Your task to perform on an android device: turn off improve location accuracy Image 0: 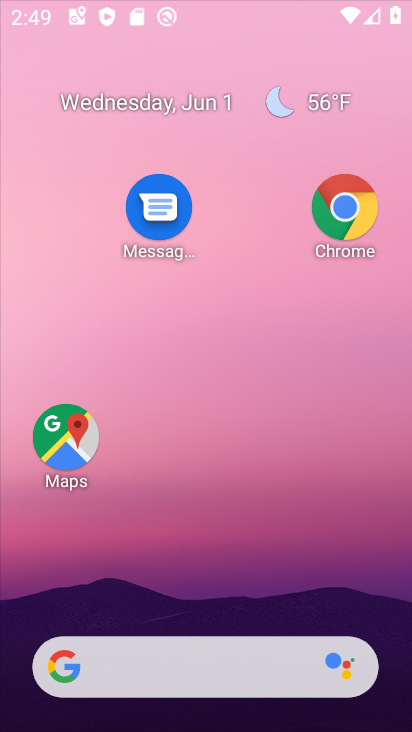
Step 0: drag from (279, 502) to (303, 213)
Your task to perform on an android device: turn off improve location accuracy Image 1: 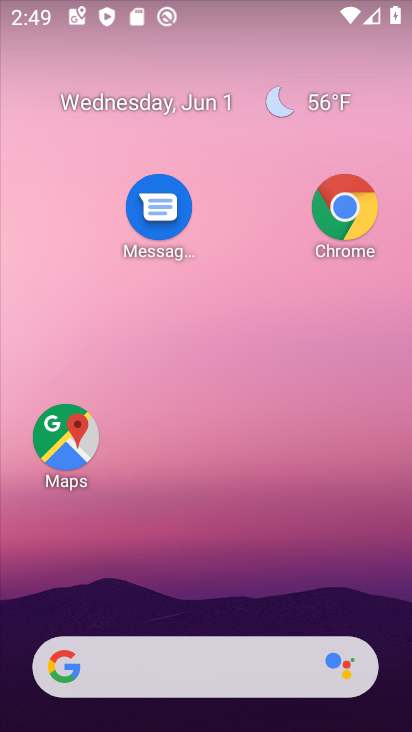
Step 1: drag from (221, 533) to (232, 107)
Your task to perform on an android device: turn off improve location accuracy Image 2: 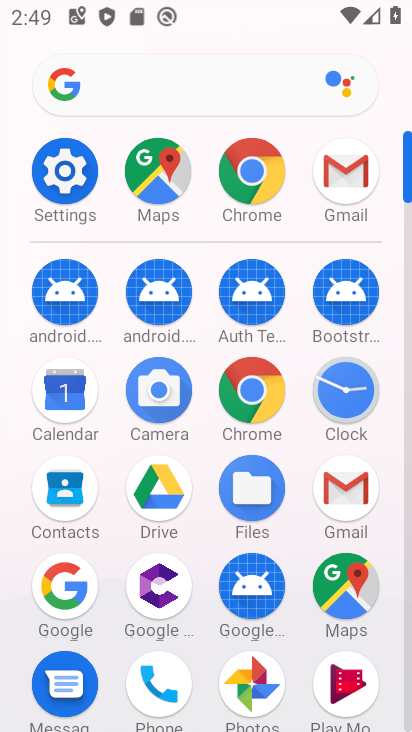
Step 2: click (74, 182)
Your task to perform on an android device: turn off improve location accuracy Image 3: 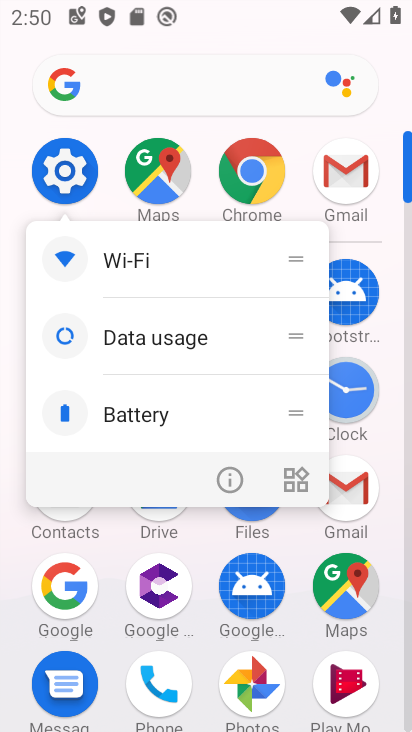
Step 3: click (224, 488)
Your task to perform on an android device: turn off improve location accuracy Image 4: 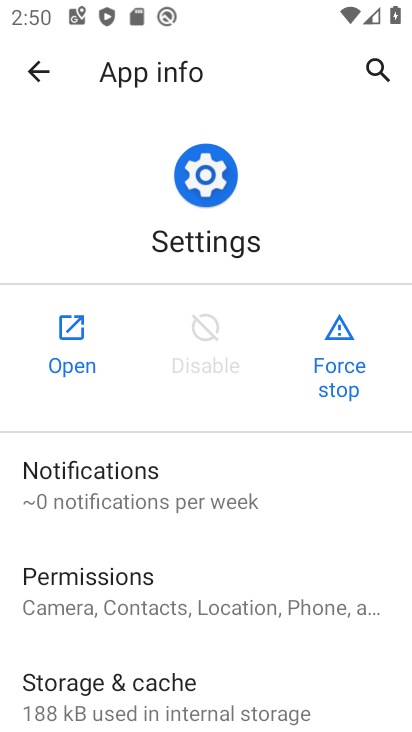
Step 4: click (74, 332)
Your task to perform on an android device: turn off improve location accuracy Image 5: 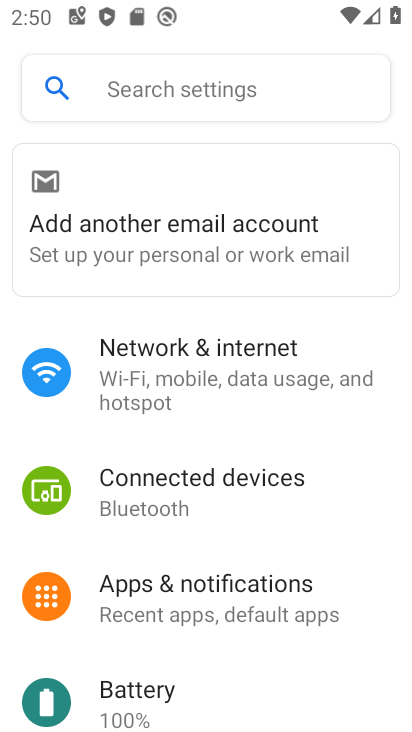
Step 5: drag from (200, 607) to (286, 21)
Your task to perform on an android device: turn off improve location accuracy Image 6: 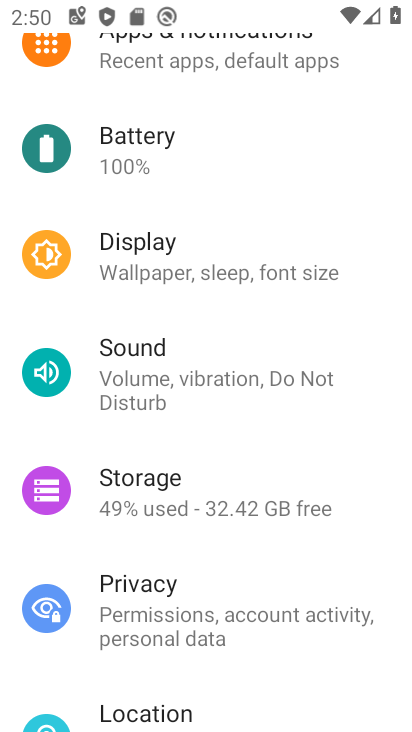
Step 6: drag from (208, 604) to (340, 157)
Your task to perform on an android device: turn off improve location accuracy Image 7: 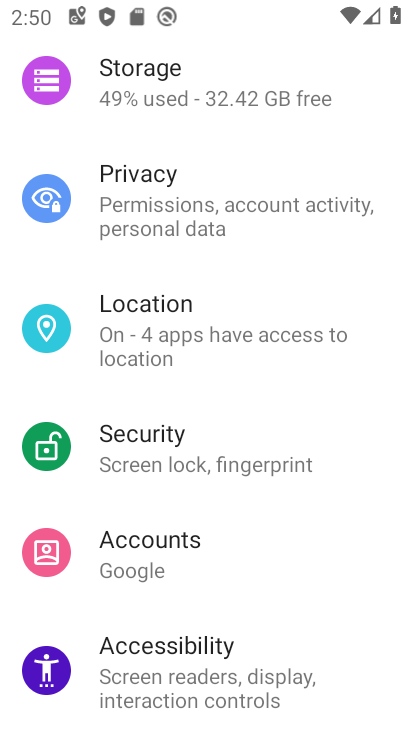
Step 7: drag from (248, 575) to (334, 130)
Your task to perform on an android device: turn off improve location accuracy Image 8: 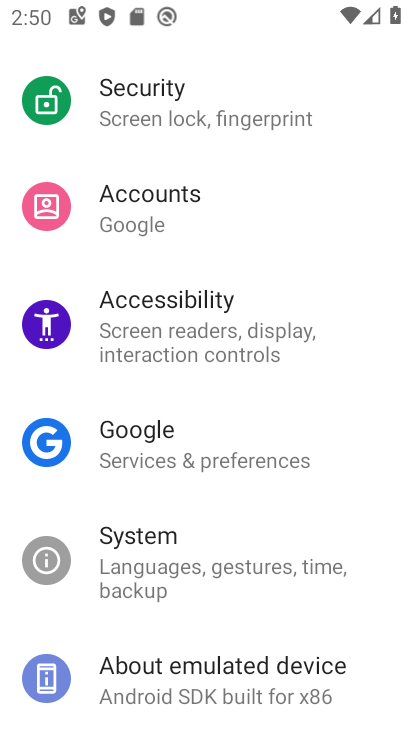
Step 8: drag from (235, 237) to (285, 645)
Your task to perform on an android device: turn off improve location accuracy Image 9: 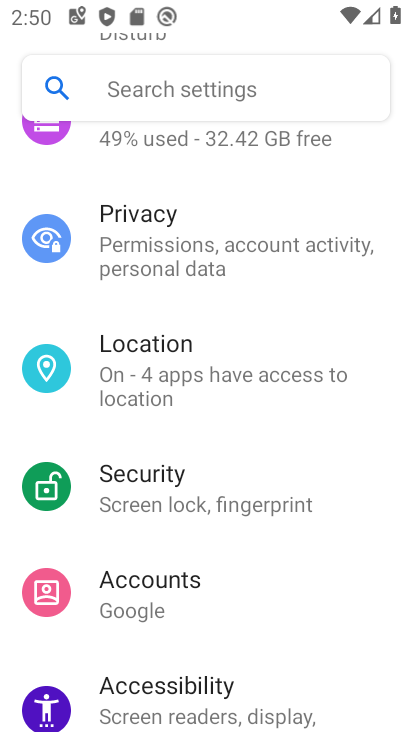
Step 9: click (154, 364)
Your task to perform on an android device: turn off improve location accuracy Image 10: 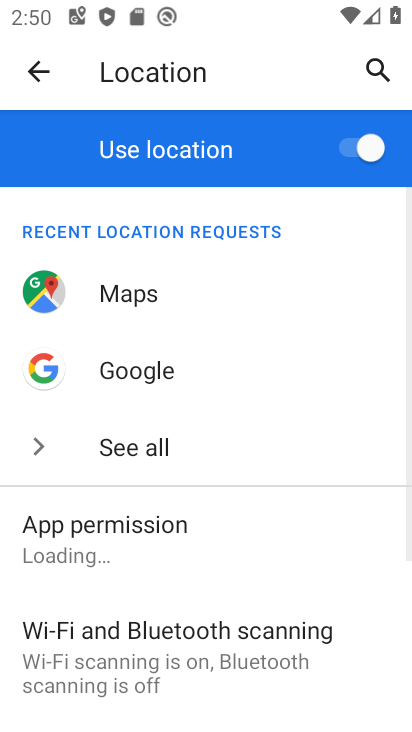
Step 10: drag from (198, 531) to (209, 275)
Your task to perform on an android device: turn off improve location accuracy Image 11: 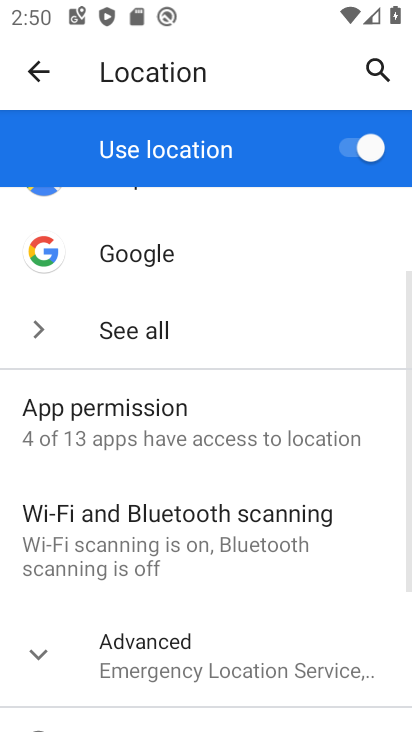
Step 11: click (184, 658)
Your task to perform on an android device: turn off improve location accuracy Image 12: 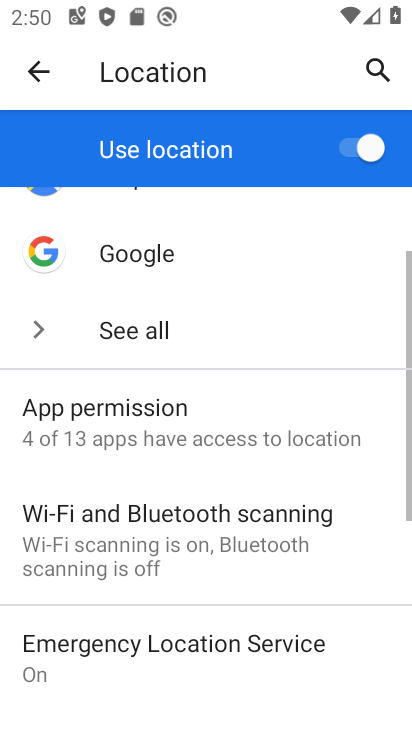
Step 12: drag from (258, 474) to (316, 150)
Your task to perform on an android device: turn off improve location accuracy Image 13: 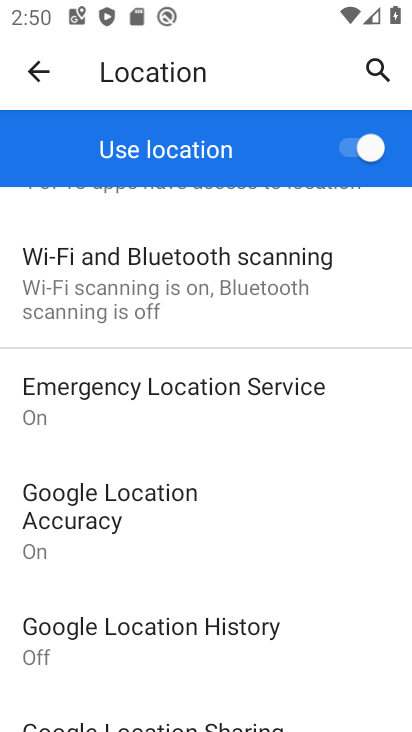
Step 13: drag from (222, 312) to (265, 382)
Your task to perform on an android device: turn off improve location accuracy Image 14: 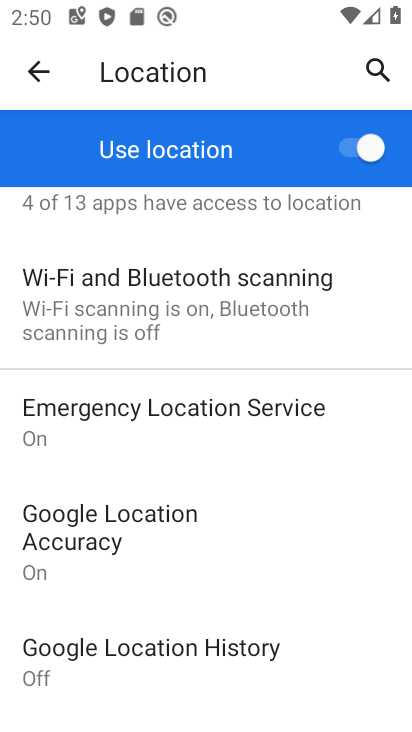
Step 14: click (144, 542)
Your task to perform on an android device: turn off improve location accuracy Image 15: 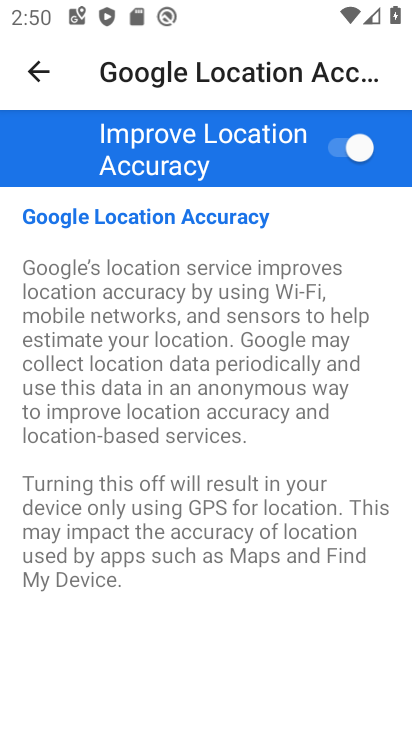
Step 15: click (348, 155)
Your task to perform on an android device: turn off improve location accuracy Image 16: 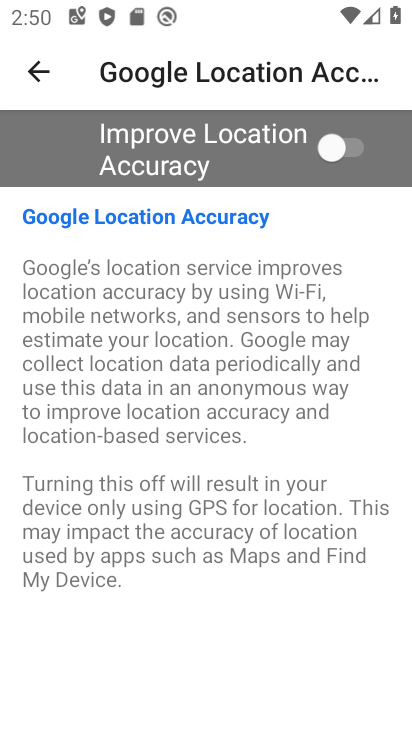
Step 16: drag from (198, 506) to (261, 33)
Your task to perform on an android device: turn off improve location accuracy Image 17: 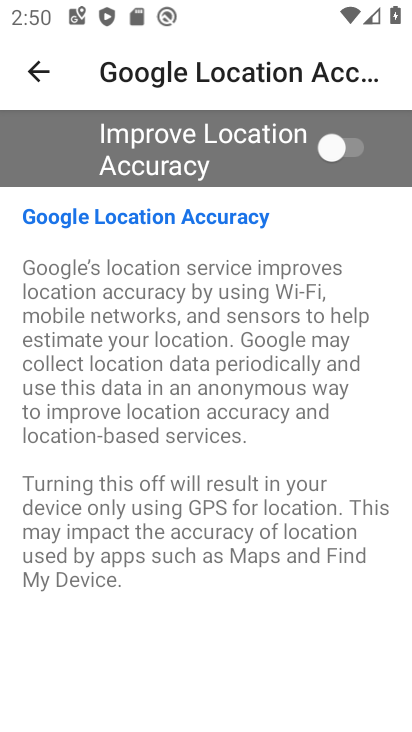
Step 17: drag from (127, 195) to (407, 350)
Your task to perform on an android device: turn off improve location accuracy Image 18: 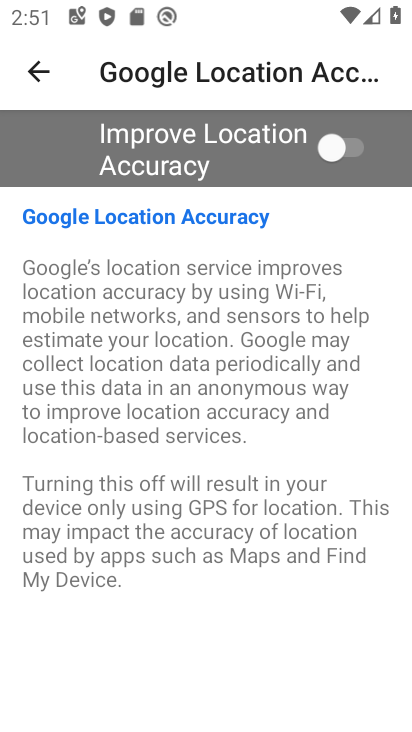
Step 18: click (42, 77)
Your task to perform on an android device: turn off improve location accuracy Image 19: 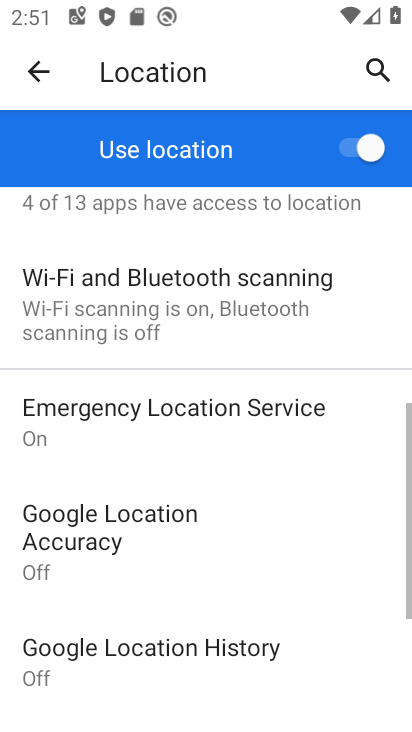
Step 19: click (143, 520)
Your task to perform on an android device: turn off improve location accuracy Image 20: 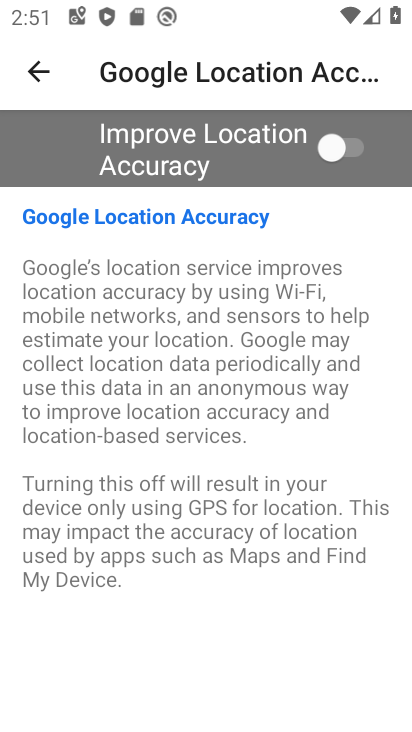
Step 20: task complete